Your task to perform on an android device: show emergency info Image 0: 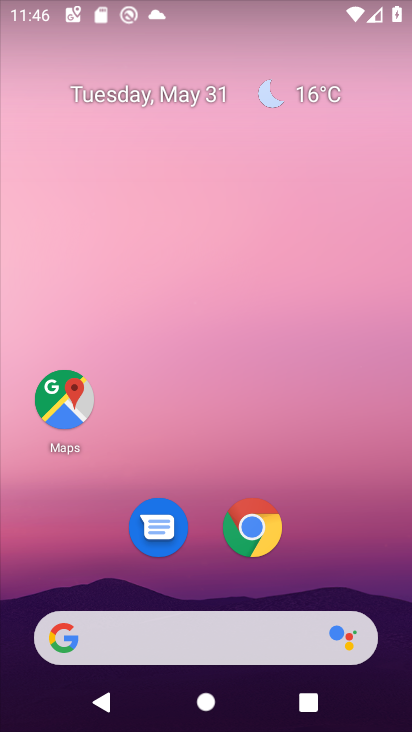
Step 0: drag from (341, 591) to (358, 12)
Your task to perform on an android device: show emergency info Image 1: 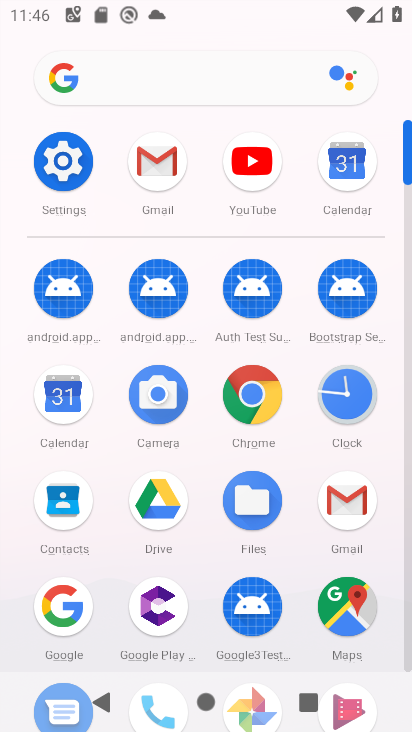
Step 1: click (67, 166)
Your task to perform on an android device: show emergency info Image 2: 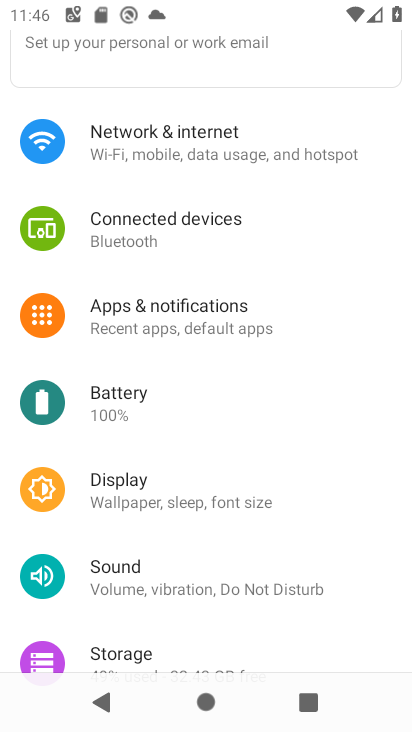
Step 2: drag from (345, 596) to (324, 39)
Your task to perform on an android device: show emergency info Image 3: 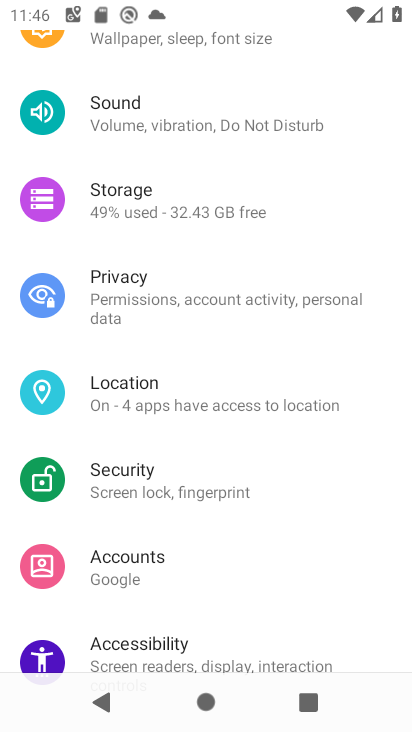
Step 3: drag from (209, 580) to (231, 120)
Your task to perform on an android device: show emergency info Image 4: 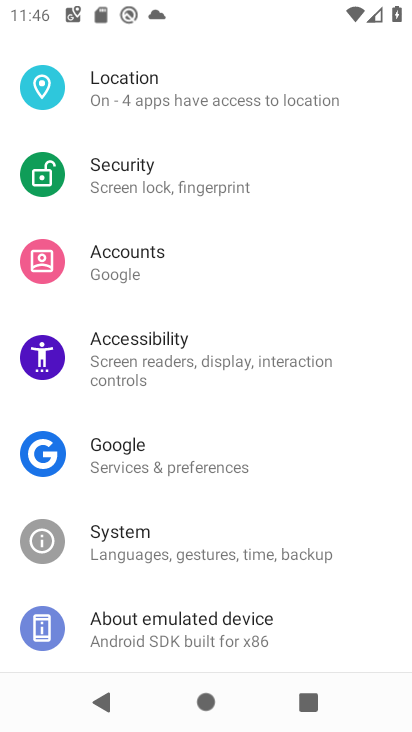
Step 4: click (145, 632)
Your task to perform on an android device: show emergency info Image 5: 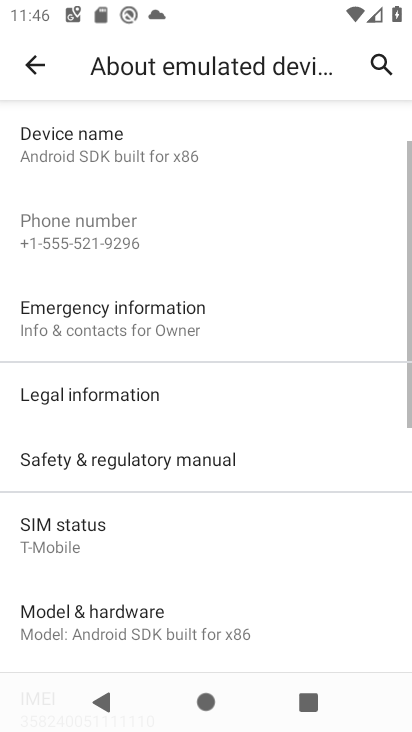
Step 5: click (79, 313)
Your task to perform on an android device: show emergency info Image 6: 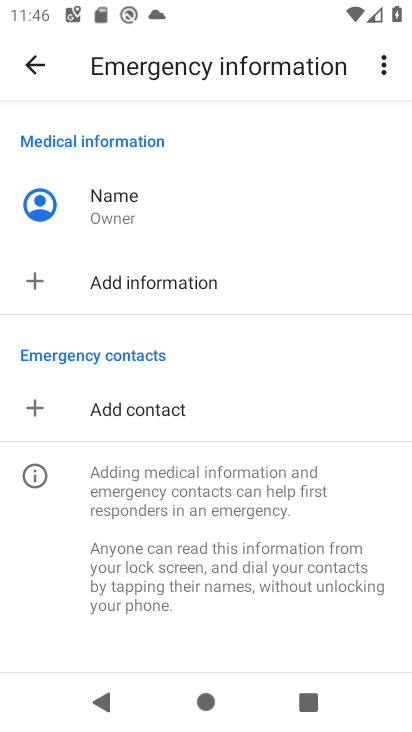
Step 6: task complete